Your task to perform on an android device: Open Reddit.com Image 0: 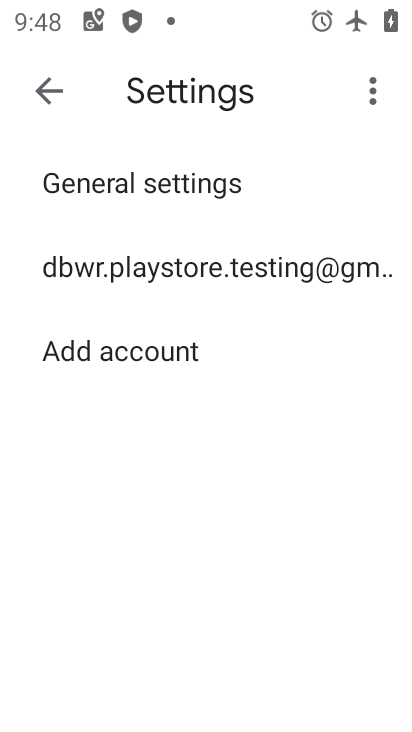
Step 0: press home button
Your task to perform on an android device: Open Reddit.com Image 1: 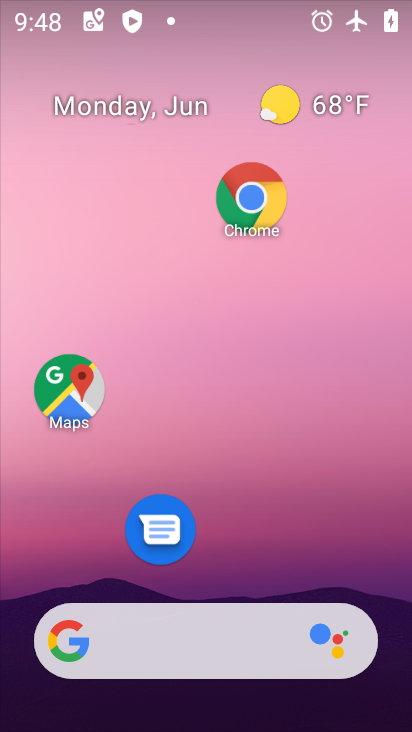
Step 1: click (226, 197)
Your task to perform on an android device: Open Reddit.com Image 2: 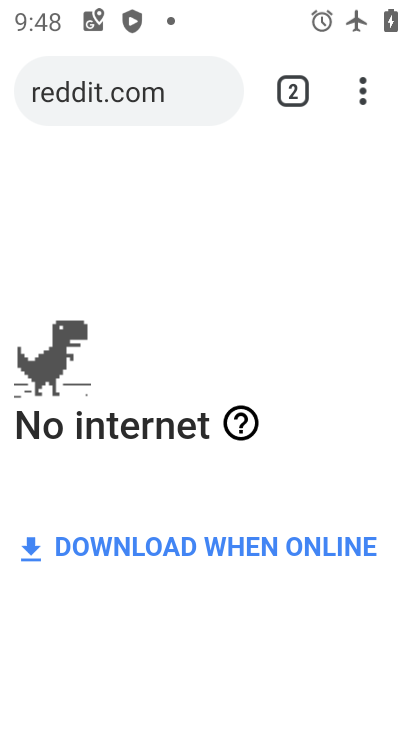
Step 2: click (286, 104)
Your task to perform on an android device: Open Reddit.com Image 3: 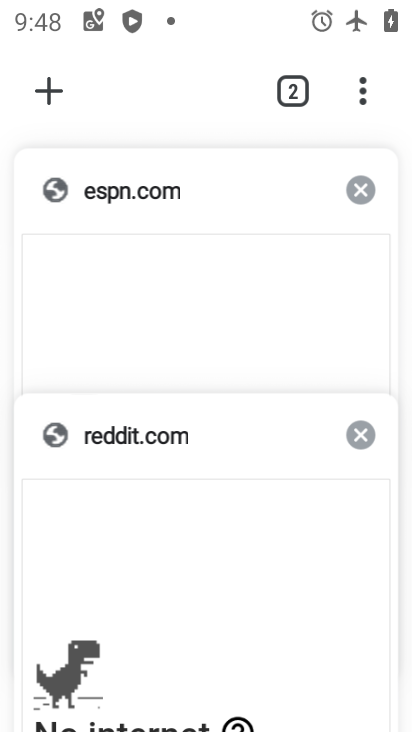
Step 3: click (61, 84)
Your task to perform on an android device: Open Reddit.com Image 4: 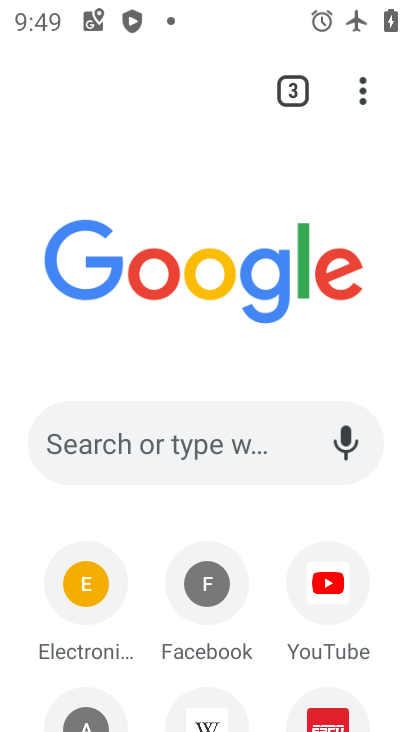
Step 4: click (205, 434)
Your task to perform on an android device: Open Reddit.com Image 5: 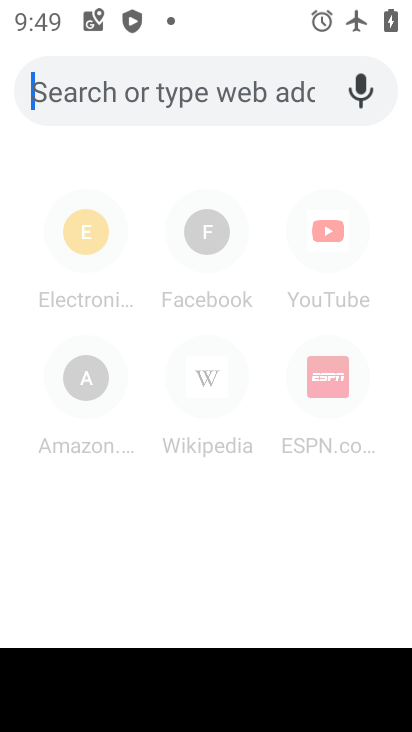
Step 5: type "Reddit.com"
Your task to perform on an android device: Open Reddit.com Image 6: 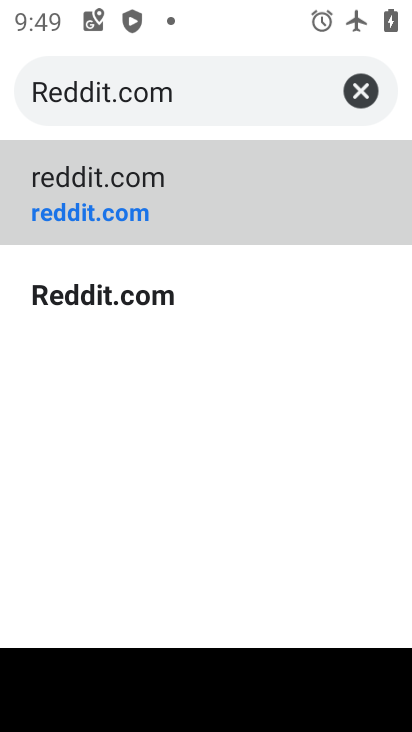
Step 6: click (288, 206)
Your task to perform on an android device: Open Reddit.com Image 7: 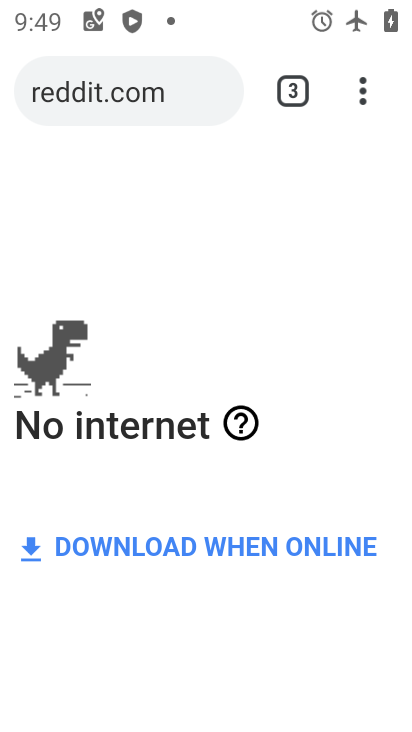
Step 7: task complete